Your task to perform on an android device: Go to eBay Image 0: 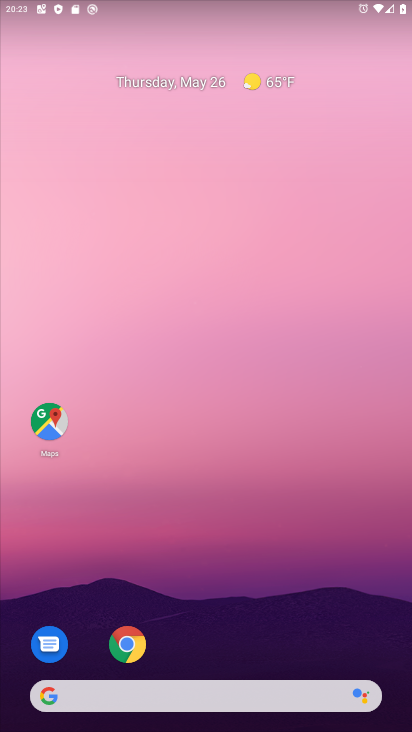
Step 0: drag from (162, 634) to (239, 115)
Your task to perform on an android device: Go to eBay Image 1: 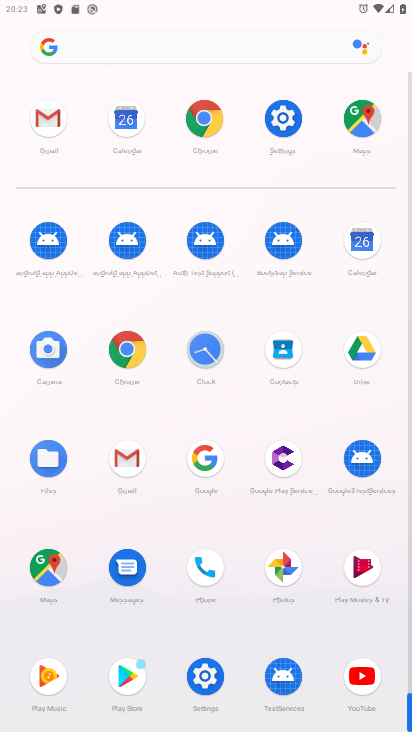
Step 1: click (206, 31)
Your task to perform on an android device: Go to eBay Image 2: 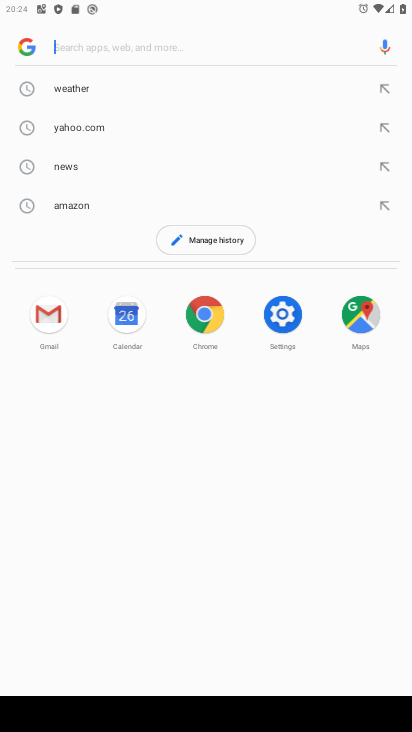
Step 2: type "ebay"
Your task to perform on an android device: Go to eBay Image 3: 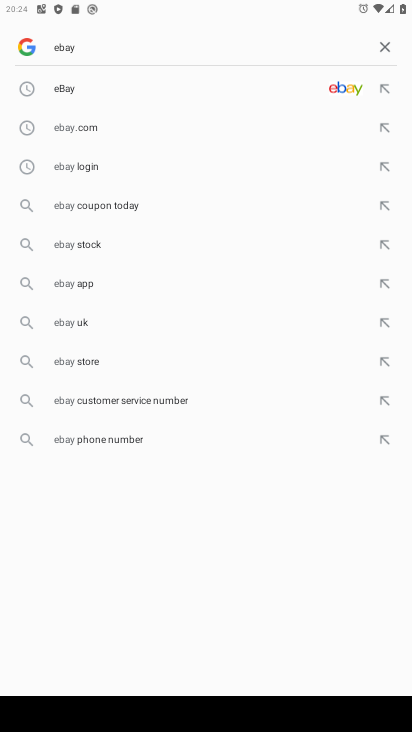
Step 3: click (134, 95)
Your task to perform on an android device: Go to eBay Image 4: 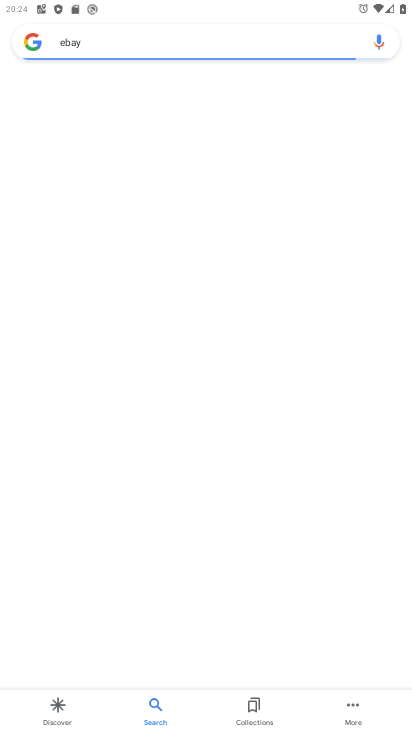
Step 4: drag from (237, 656) to (389, 160)
Your task to perform on an android device: Go to eBay Image 5: 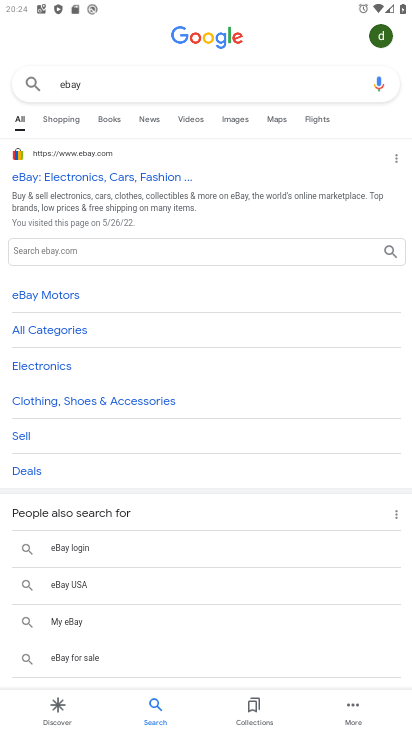
Step 5: click (76, 175)
Your task to perform on an android device: Go to eBay Image 6: 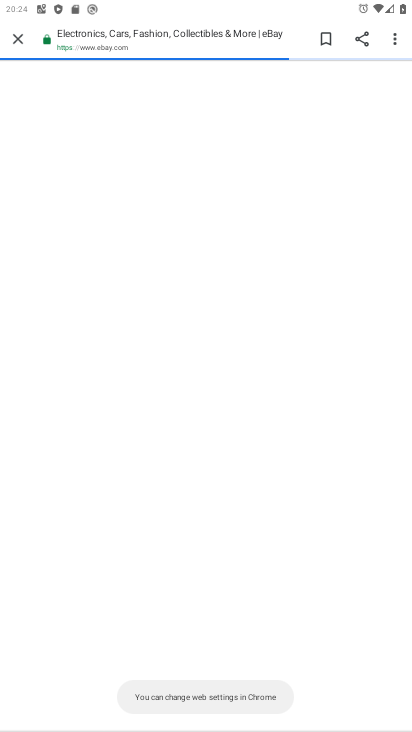
Step 6: task complete